Your task to perform on an android device: Open Google Chrome Image 0: 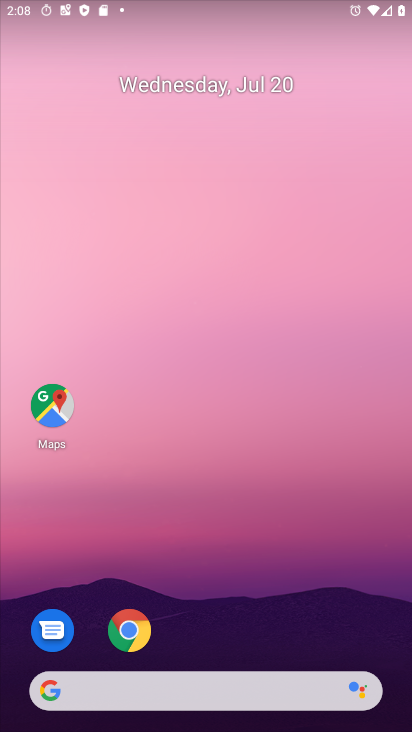
Step 0: click (145, 625)
Your task to perform on an android device: Open Google Chrome Image 1: 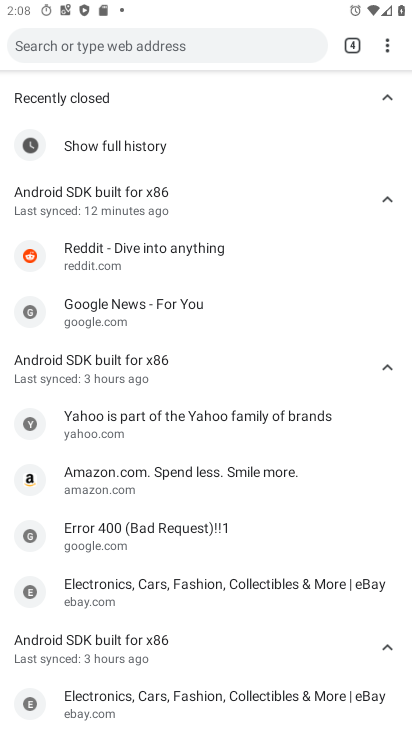
Step 1: task complete